Your task to perform on an android device: Do I have any events today? Image 0: 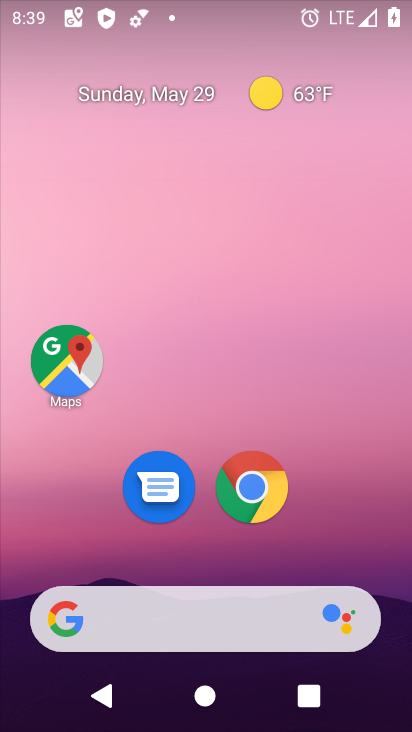
Step 0: drag from (224, 634) to (294, 128)
Your task to perform on an android device: Do I have any events today? Image 1: 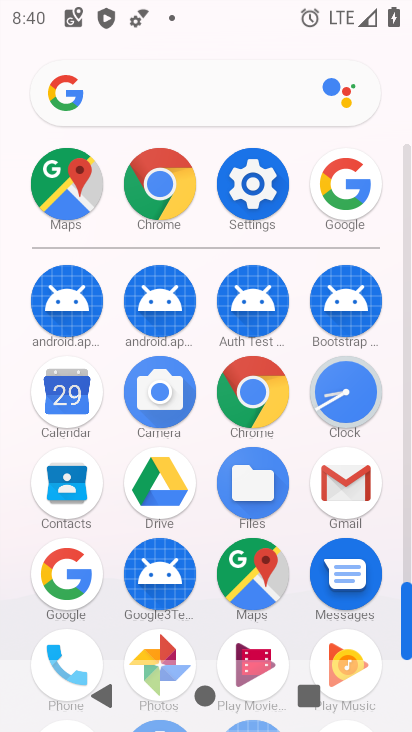
Step 1: drag from (189, 467) to (232, 195)
Your task to perform on an android device: Do I have any events today? Image 2: 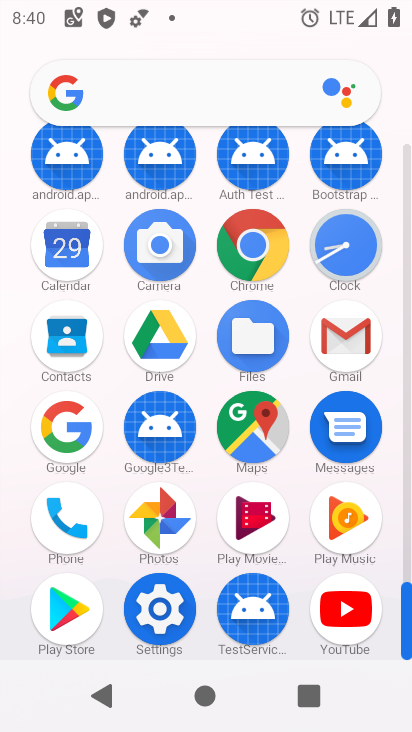
Step 2: click (69, 256)
Your task to perform on an android device: Do I have any events today? Image 3: 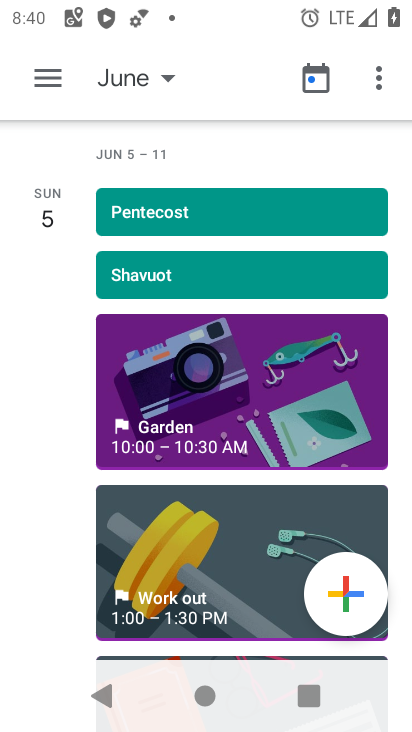
Step 3: click (145, 84)
Your task to perform on an android device: Do I have any events today? Image 4: 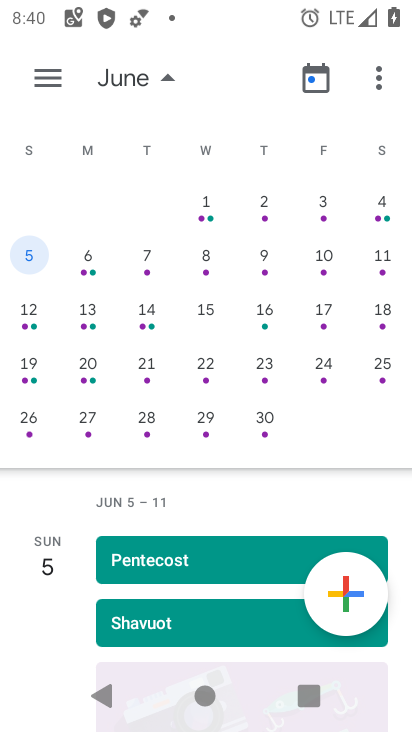
Step 4: drag from (48, 338) to (409, 306)
Your task to perform on an android device: Do I have any events today? Image 5: 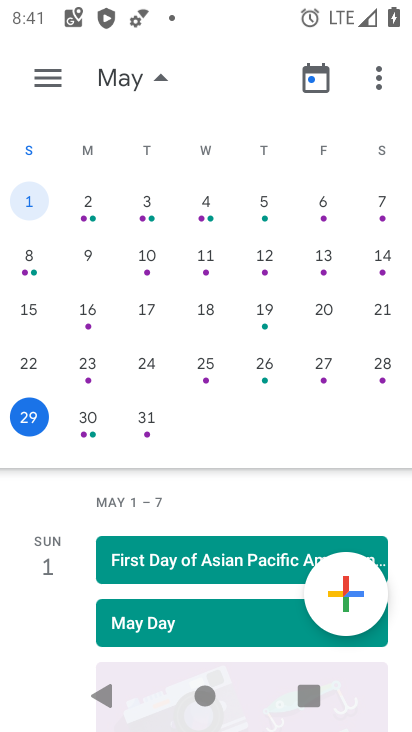
Step 5: click (150, 416)
Your task to perform on an android device: Do I have any events today? Image 6: 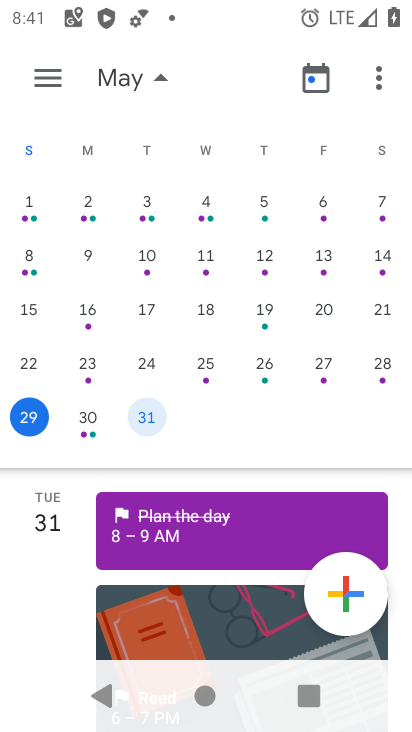
Step 6: click (96, 433)
Your task to perform on an android device: Do I have any events today? Image 7: 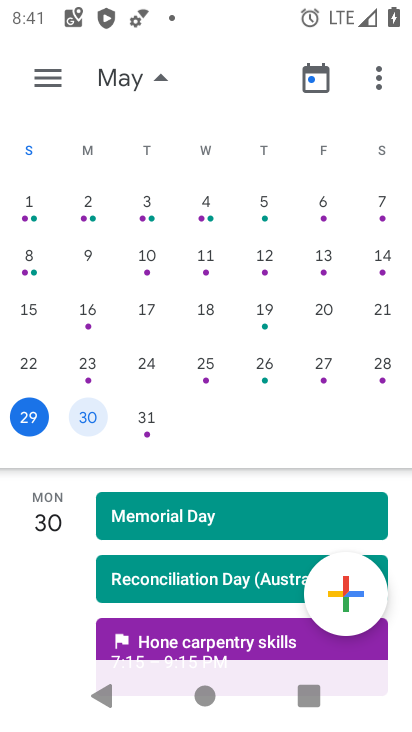
Step 7: click (32, 414)
Your task to perform on an android device: Do I have any events today? Image 8: 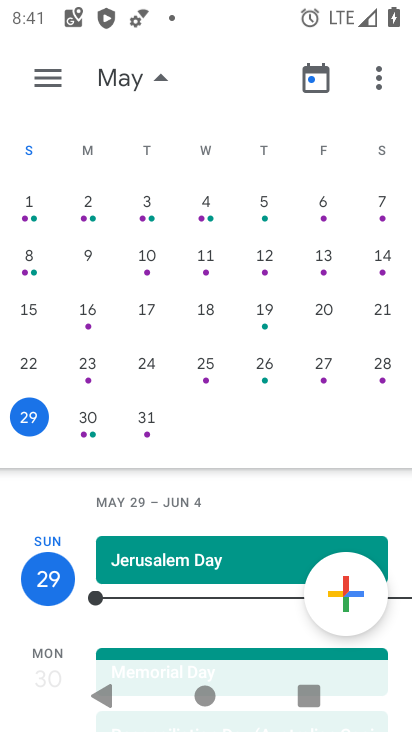
Step 8: task complete